Your task to perform on an android device: Go to CNN.com Image 0: 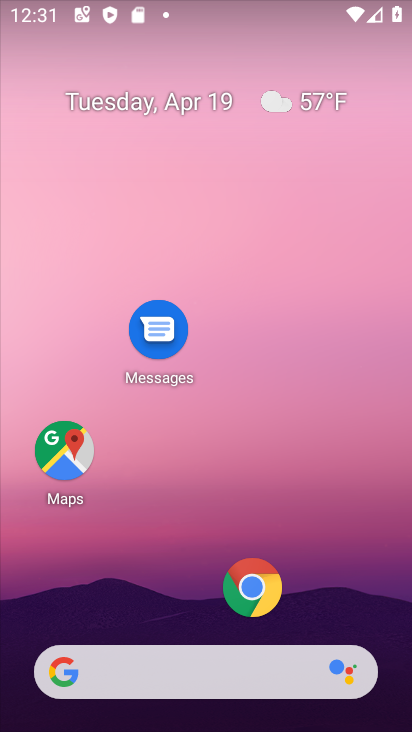
Step 0: drag from (175, 485) to (178, 94)
Your task to perform on an android device: Go to CNN.com Image 1: 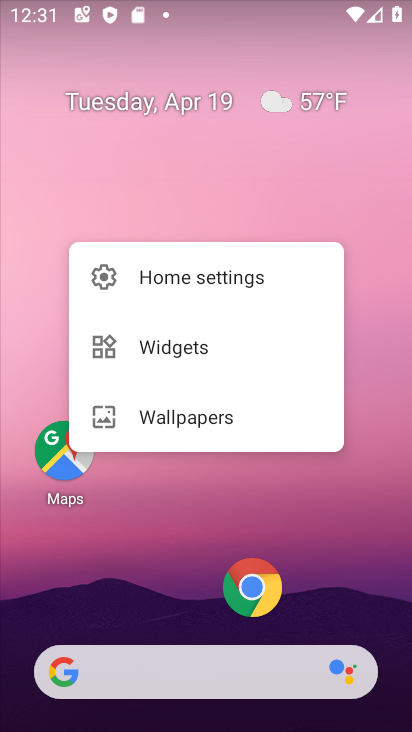
Step 1: click (162, 549)
Your task to perform on an android device: Go to CNN.com Image 2: 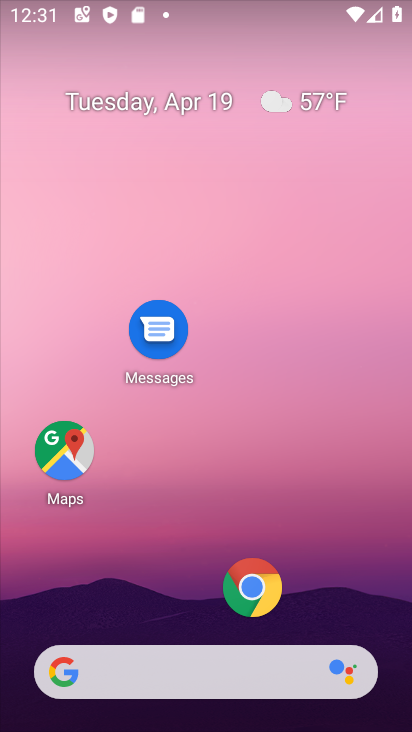
Step 2: drag from (181, 596) to (206, 180)
Your task to perform on an android device: Go to CNN.com Image 3: 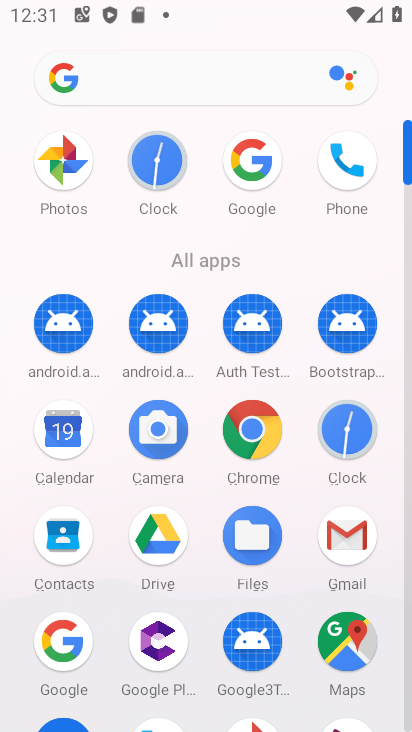
Step 3: click (249, 160)
Your task to perform on an android device: Go to CNN.com Image 4: 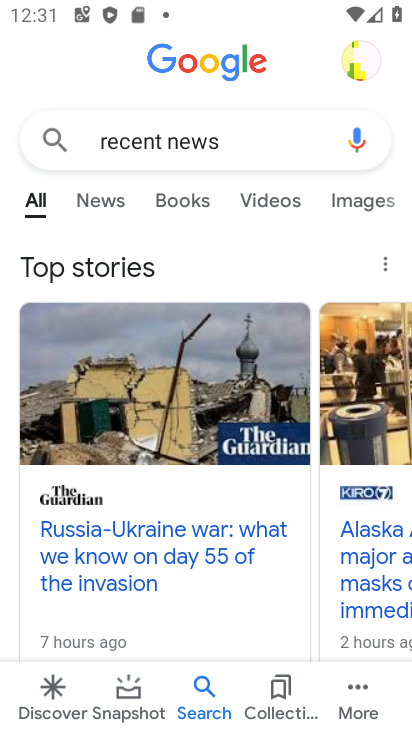
Step 4: click (261, 141)
Your task to perform on an android device: Go to CNN.com Image 5: 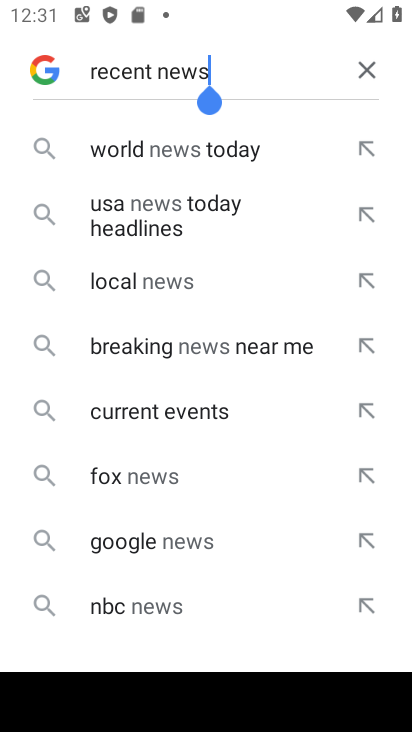
Step 5: click (364, 54)
Your task to perform on an android device: Go to CNN.com Image 6: 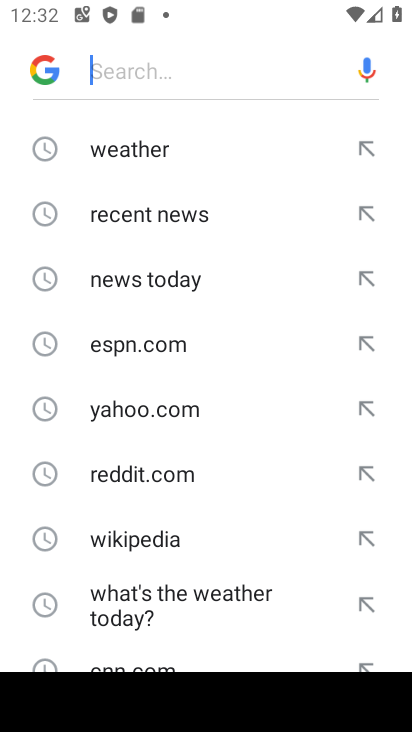
Step 6: type "cnn.com"
Your task to perform on an android device: Go to CNN.com Image 7: 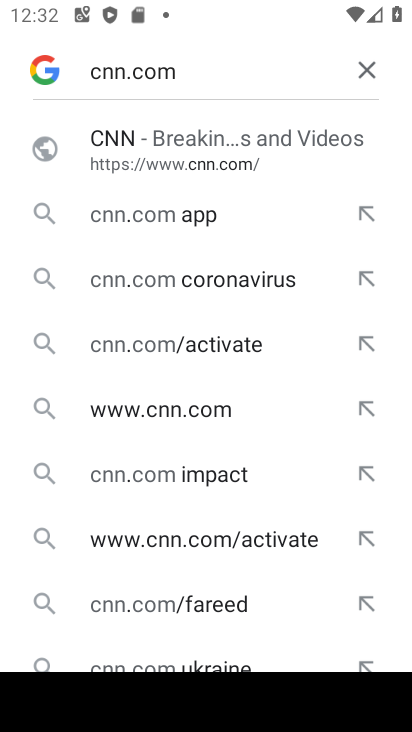
Step 7: click (208, 416)
Your task to perform on an android device: Go to CNN.com Image 8: 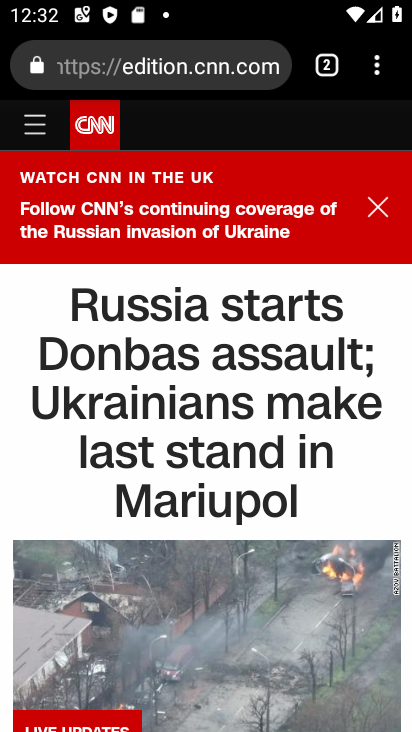
Step 8: task complete